Your task to perform on an android device: Open the calendar and show me this week's events? Image 0: 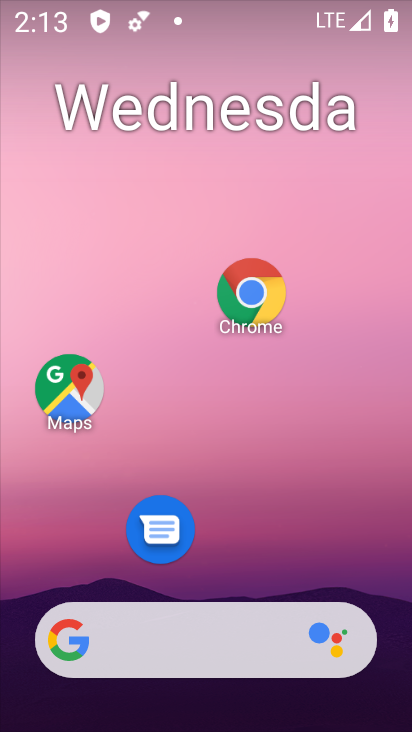
Step 0: drag from (301, 607) to (312, 139)
Your task to perform on an android device: Open the calendar and show me this week's events? Image 1: 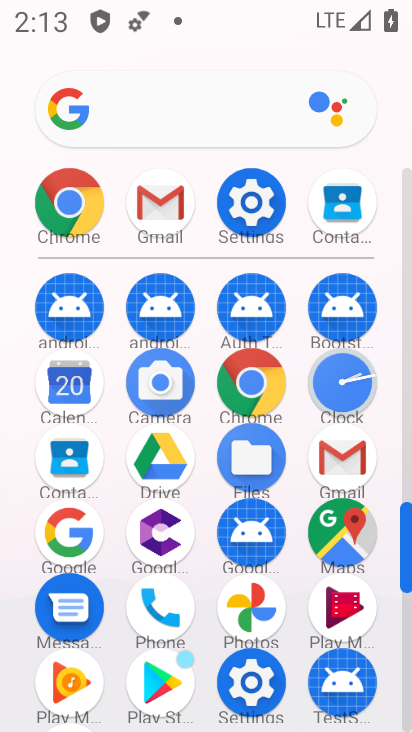
Step 1: click (76, 396)
Your task to perform on an android device: Open the calendar and show me this week's events? Image 2: 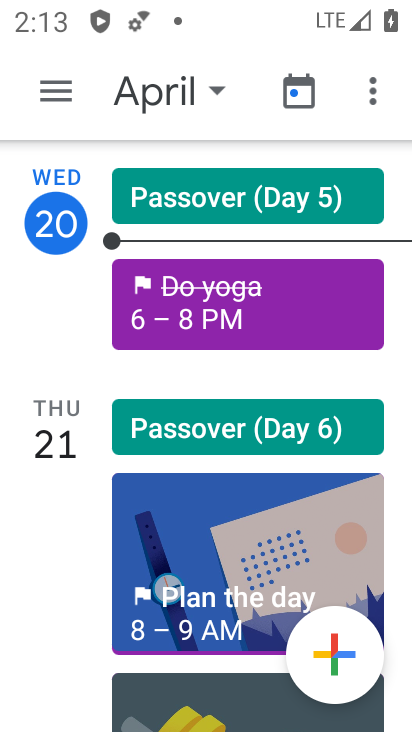
Step 2: click (129, 383)
Your task to perform on an android device: Open the calendar and show me this week's events? Image 3: 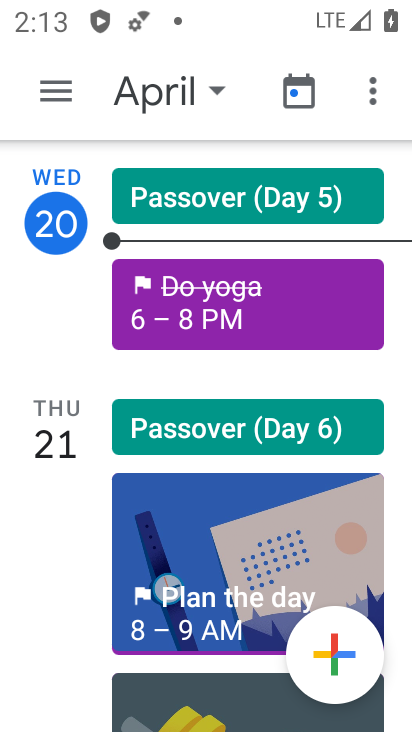
Step 3: task complete